Your task to perform on an android device: Open calendar and show me the fourth week of next month Image 0: 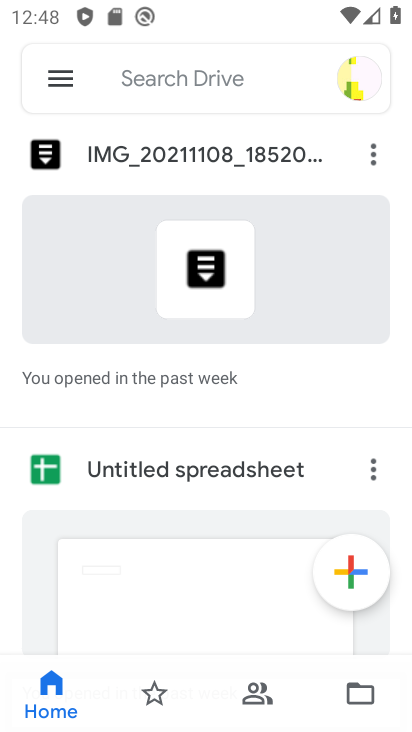
Step 0: press home button
Your task to perform on an android device: Open calendar and show me the fourth week of next month Image 1: 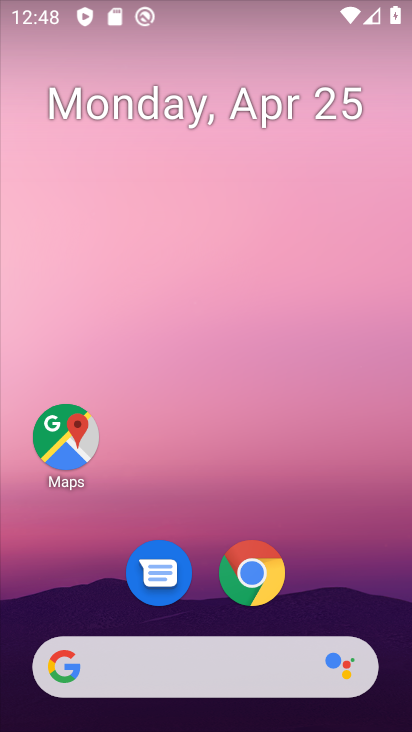
Step 1: drag from (199, 629) to (208, 141)
Your task to perform on an android device: Open calendar and show me the fourth week of next month Image 2: 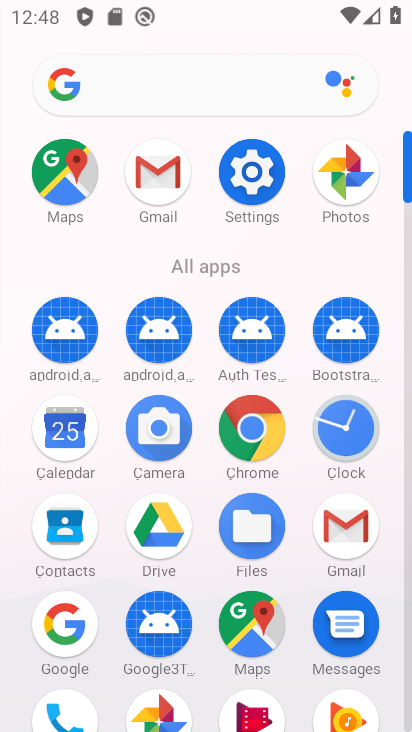
Step 2: click (66, 426)
Your task to perform on an android device: Open calendar and show me the fourth week of next month Image 3: 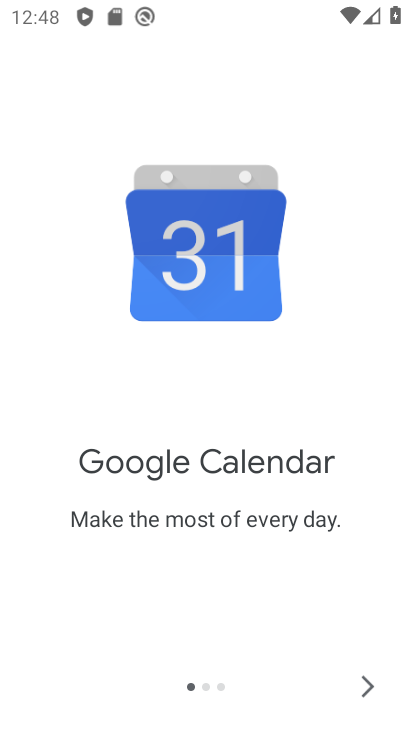
Step 3: click (369, 690)
Your task to perform on an android device: Open calendar and show me the fourth week of next month Image 4: 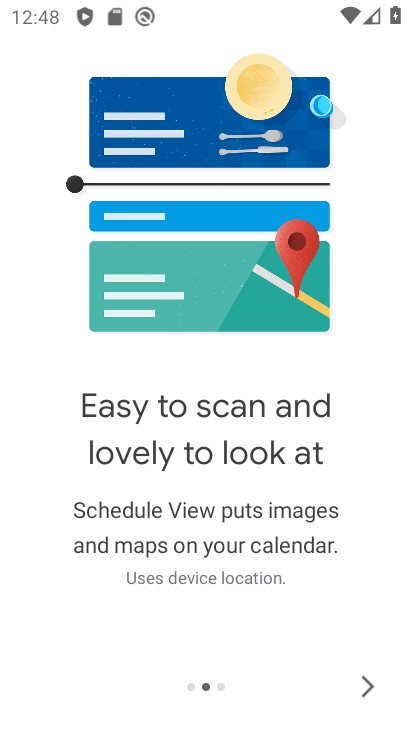
Step 4: click (369, 690)
Your task to perform on an android device: Open calendar and show me the fourth week of next month Image 5: 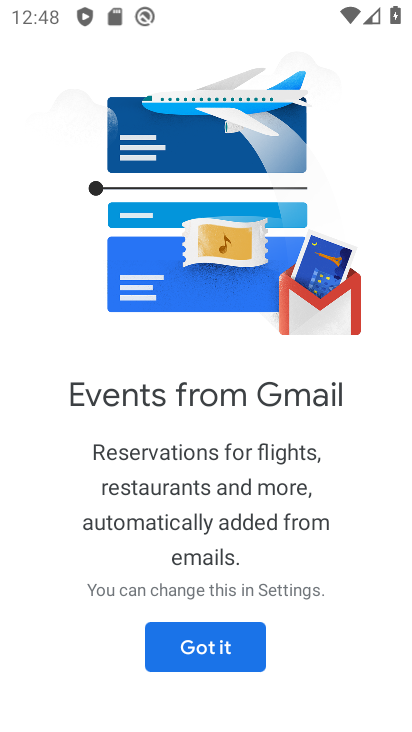
Step 5: click (196, 638)
Your task to perform on an android device: Open calendar and show me the fourth week of next month Image 6: 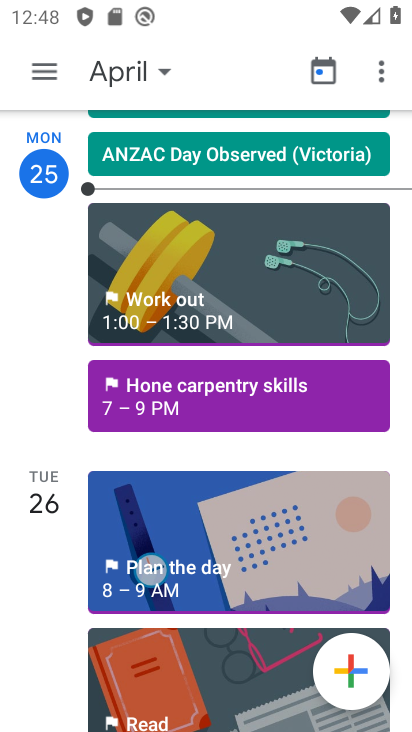
Step 6: click (154, 70)
Your task to perform on an android device: Open calendar and show me the fourth week of next month Image 7: 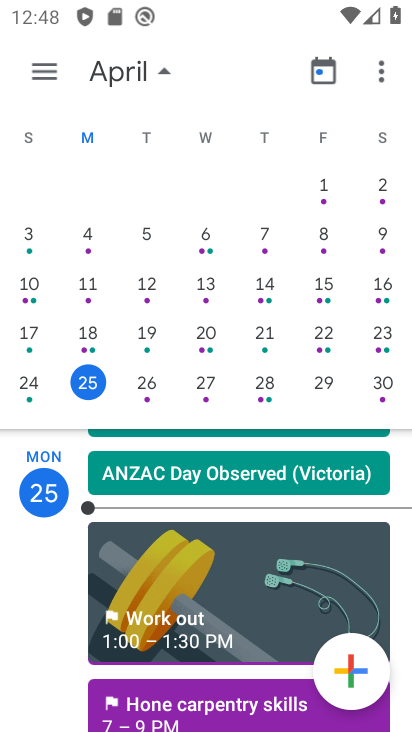
Step 7: drag from (376, 277) to (0, 92)
Your task to perform on an android device: Open calendar and show me the fourth week of next month Image 8: 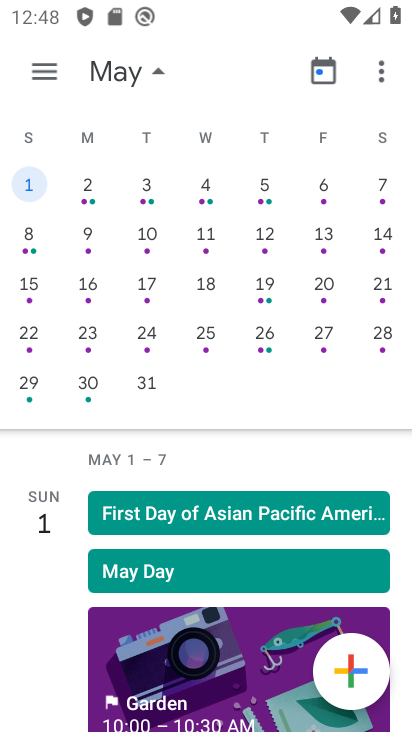
Step 8: click (156, 76)
Your task to perform on an android device: Open calendar and show me the fourth week of next month Image 9: 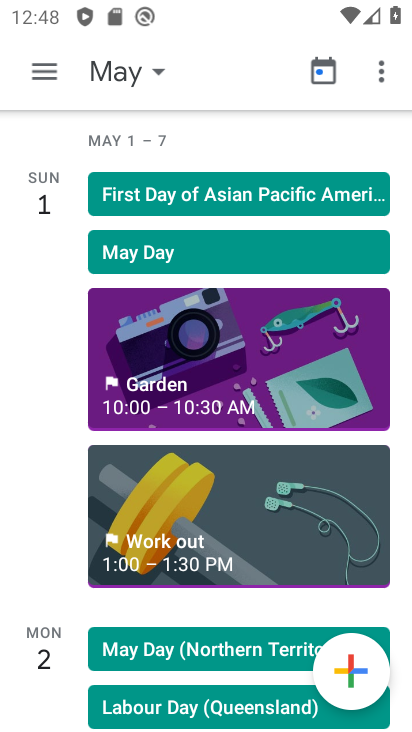
Step 9: click (31, 67)
Your task to perform on an android device: Open calendar and show me the fourth week of next month Image 10: 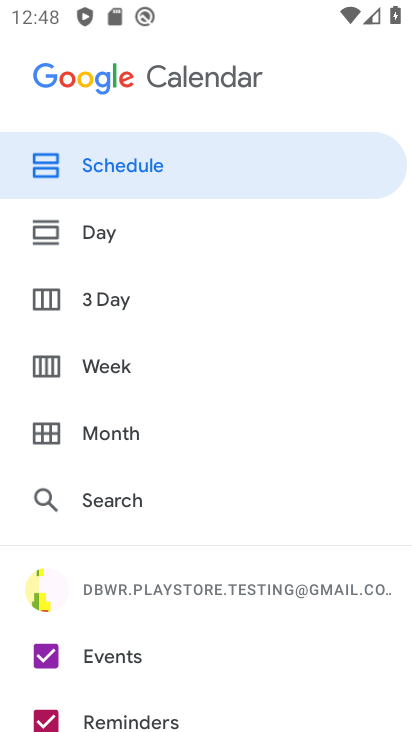
Step 10: click (130, 363)
Your task to perform on an android device: Open calendar and show me the fourth week of next month Image 11: 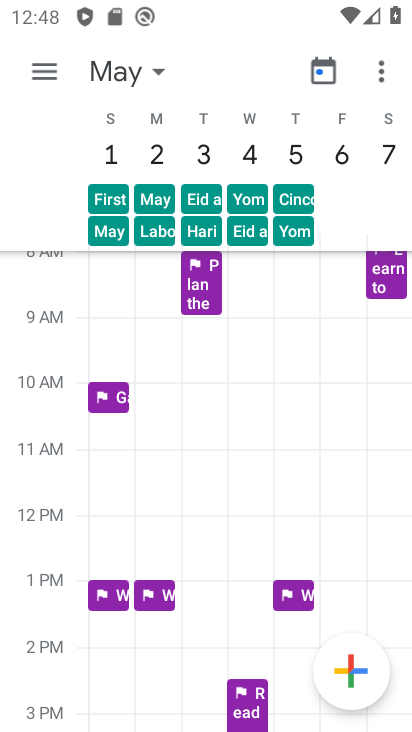
Step 11: task complete